Your task to perform on an android device: Open calendar and show me the fourth week of next month Image 0: 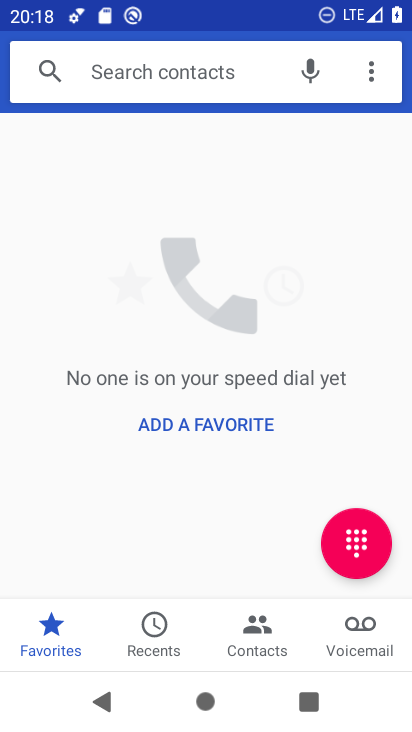
Step 0: press home button
Your task to perform on an android device: Open calendar and show me the fourth week of next month Image 1: 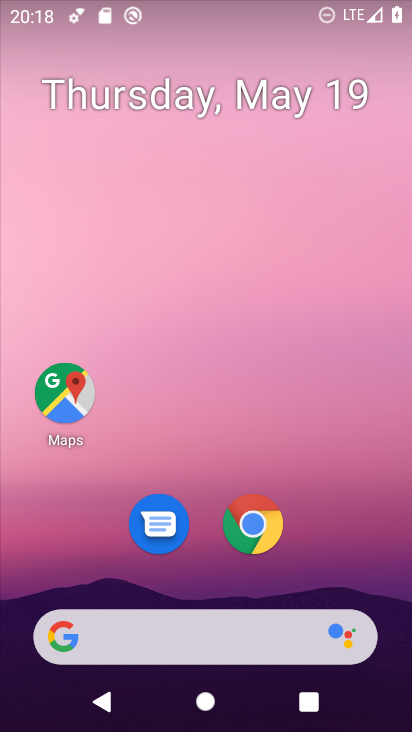
Step 1: drag from (213, 486) to (217, 139)
Your task to perform on an android device: Open calendar and show me the fourth week of next month Image 2: 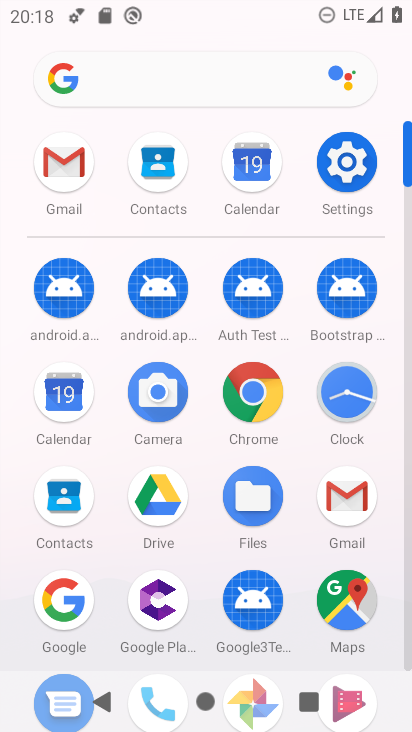
Step 2: click (244, 170)
Your task to perform on an android device: Open calendar and show me the fourth week of next month Image 3: 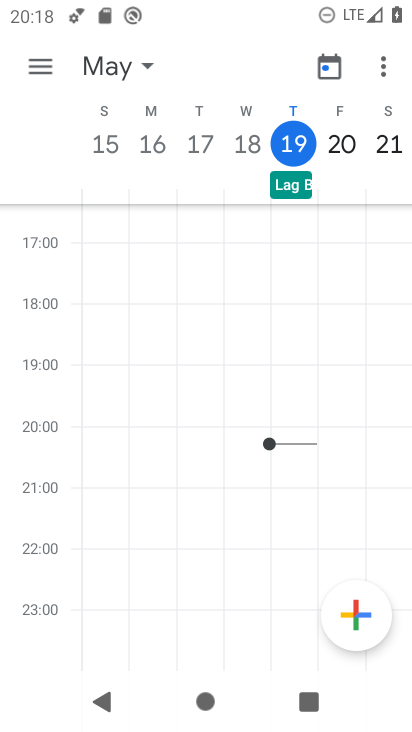
Step 3: click (39, 63)
Your task to perform on an android device: Open calendar and show me the fourth week of next month Image 4: 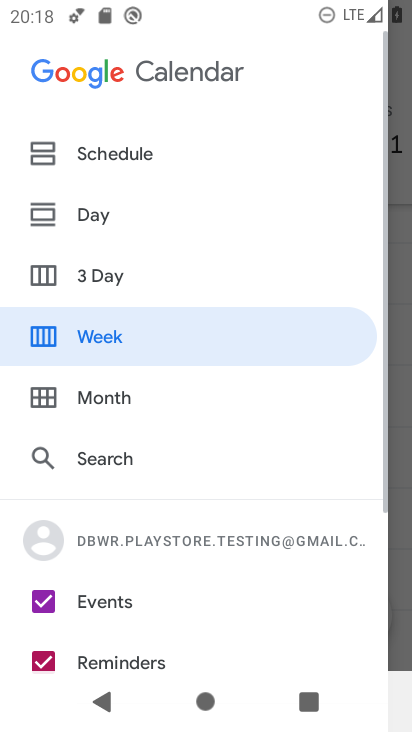
Step 4: click (38, 387)
Your task to perform on an android device: Open calendar and show me the fourth week of next month Image 5: 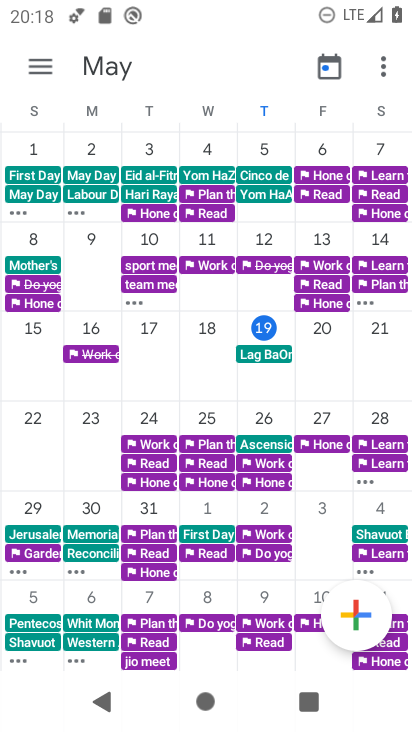
Step 5: drag from (382, 371) to (8, 509)
Your task to perform on an android device: Open calendar and show me the fourth week of next month Image 6: 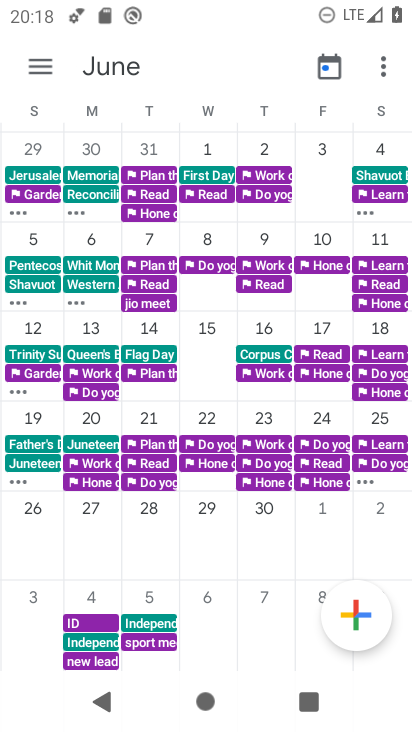
Step 6: click (37, 514)
Your task to perform on an android device: Open calendar and show me the fourth week of next month Image 7: 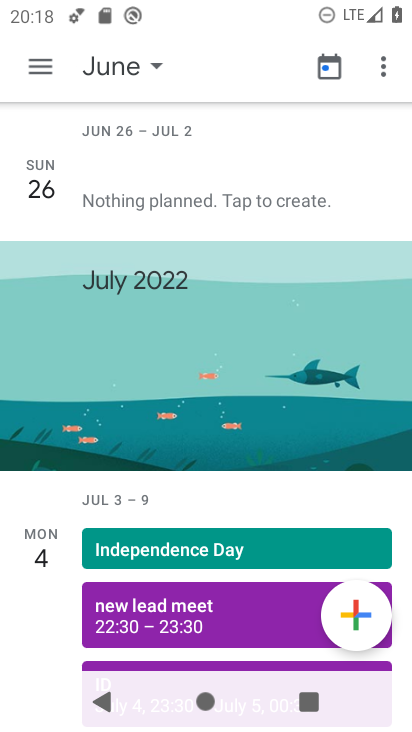
Step 7: click (43, 65)
Your task to perform on an android device: Open calendar and show me the fourth week of next month Image 8: 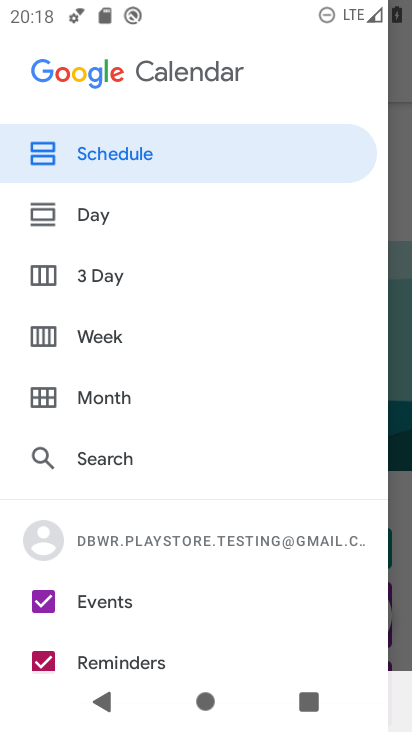
Step 8: click (41, 331)
Your task to perform on an android device: Open calendar and show me the fourth week of next month Image 9: 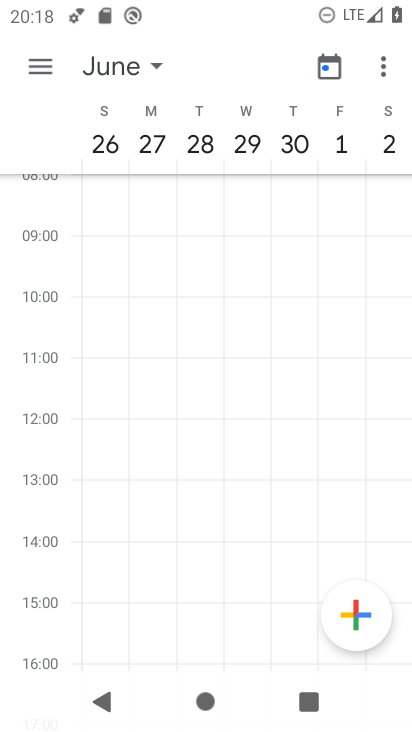
Step 9: task complete